Your task to perform on an android device: Open settings on Google Maps Image 0: 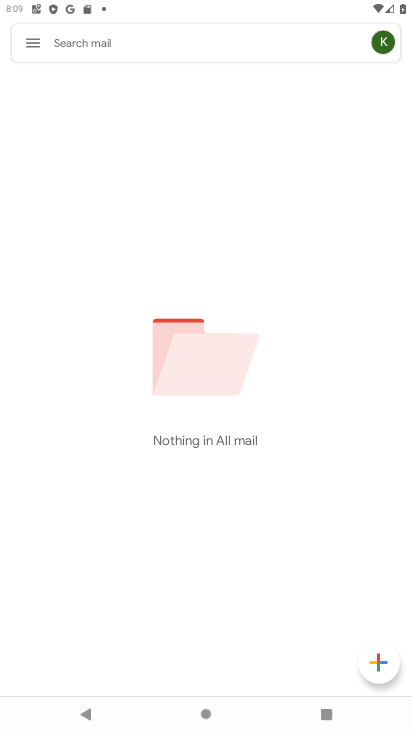
Step 0: press home button
Your task to perform on an android device: Open settings on Google Maps Image 1: 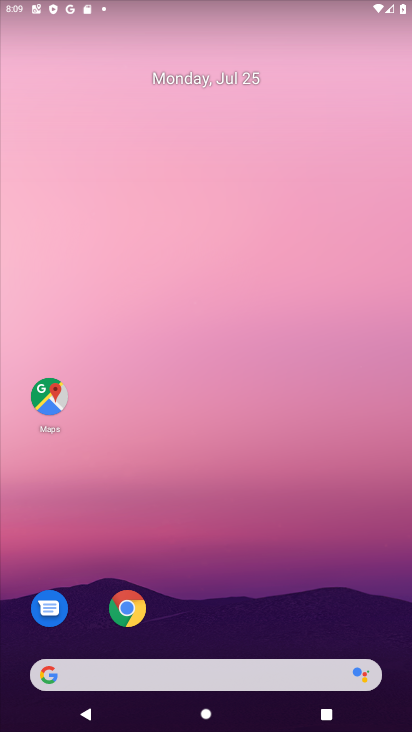
Step 1: click (64, 423)
Your task to perform on an android device: Open settings on Google Maps Image 2: 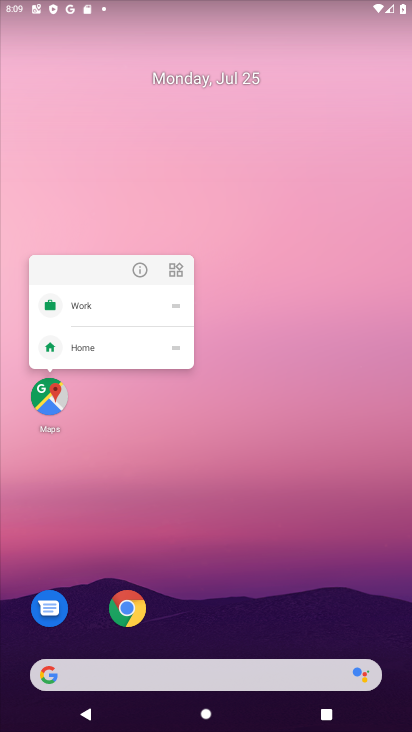
Step 2: click (64, 423)
Your task to perform on an android device: Open settings on Google Maps Image 3: 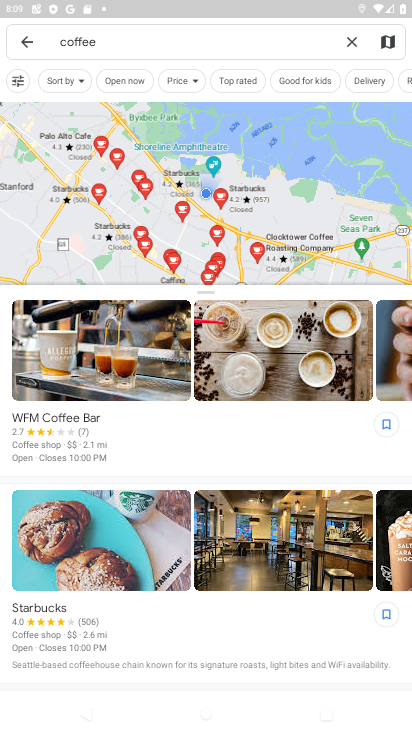
Step 3: click (28, 45)
Your task to perform on an android device: Open settings on Google Maps Image 4: 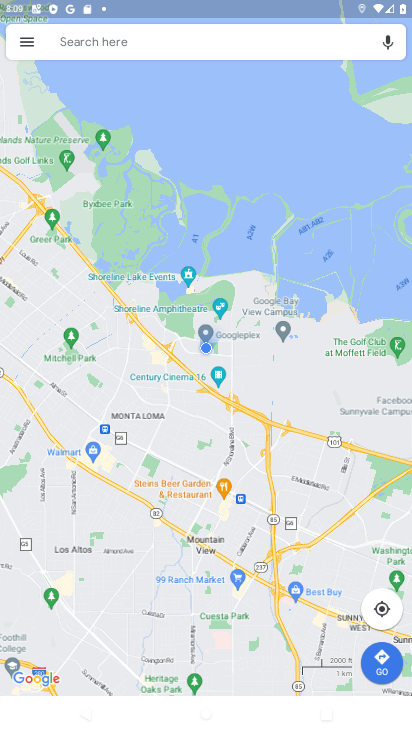
Step 4: click (28, 45)
Your task to perform on an android device: Open settings on Google Maps Image 5: 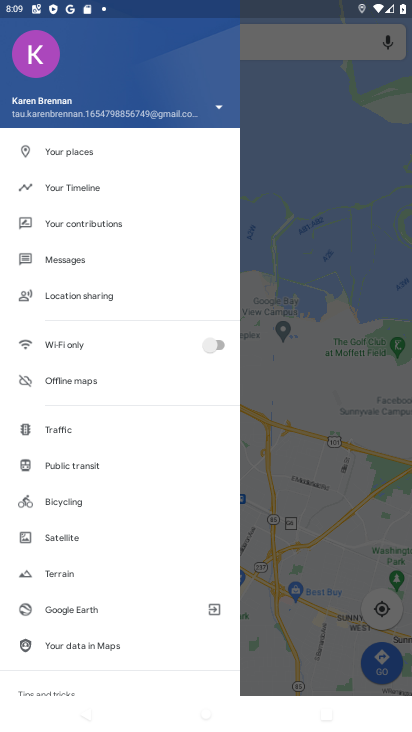
Step 5: drag from (111, 652) to (148, 450)
Your task to perform on an android device: Open settings on Google Maps Image 6: 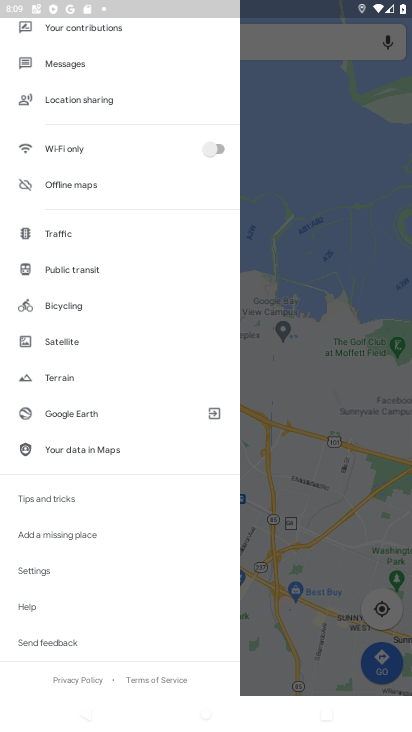
Step 6: click (33, 572)
Your task to perform on an android device: Open settings on Google Maps Image 7: 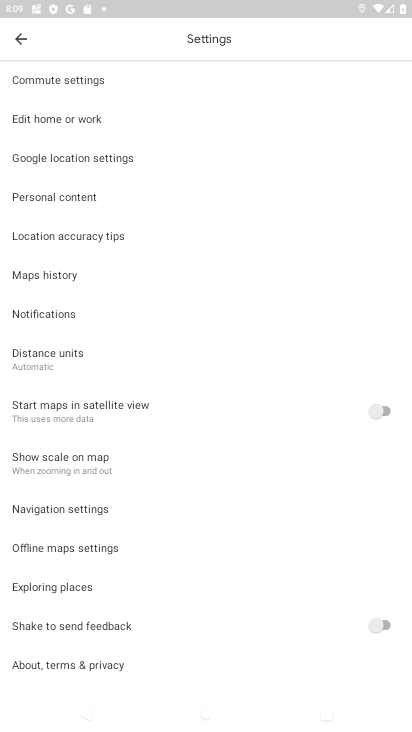
Step 7: task complete